Your task to perform on an android device: Search for vegetarian restaurants on Maps Image 0: 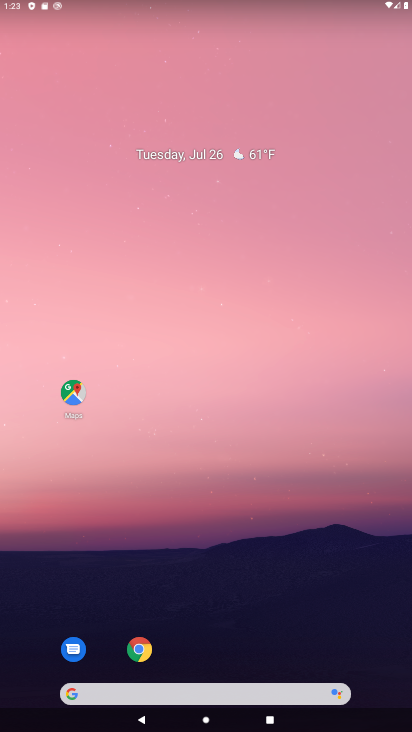
Step 0: click (81, 396)
Your task to perform on an android device: Search for vegetarian restaurants on Maps Image 1: 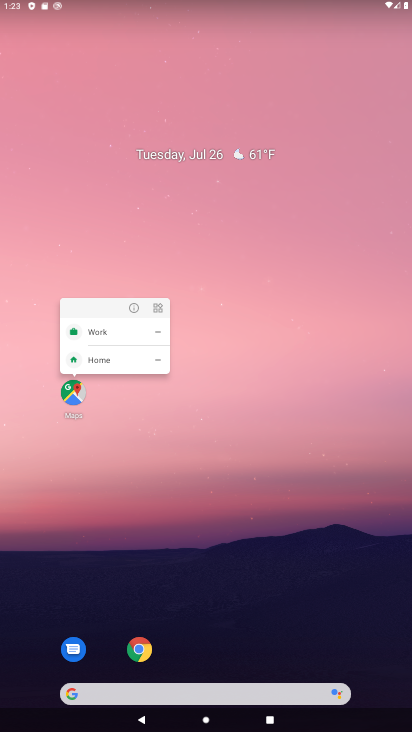
Step 1: click (73, 402)
Your task to perform on an android device: Search for vegetarian restaurants on Maps Image 2: 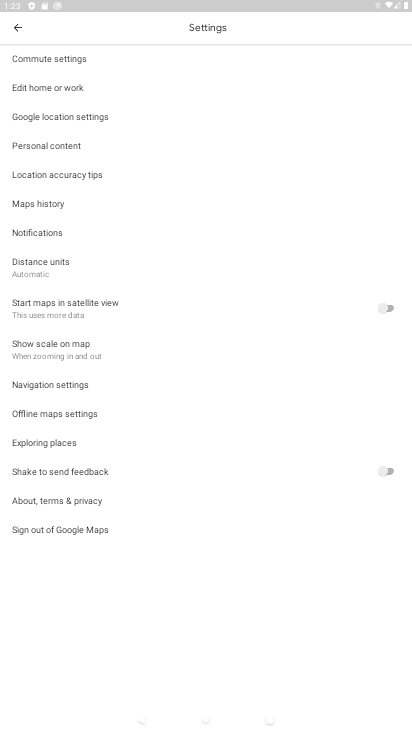
Step 2: click (17, 29)
Your task to perform on an android device: Search for vegetarian restaurants on Maps Image 3: 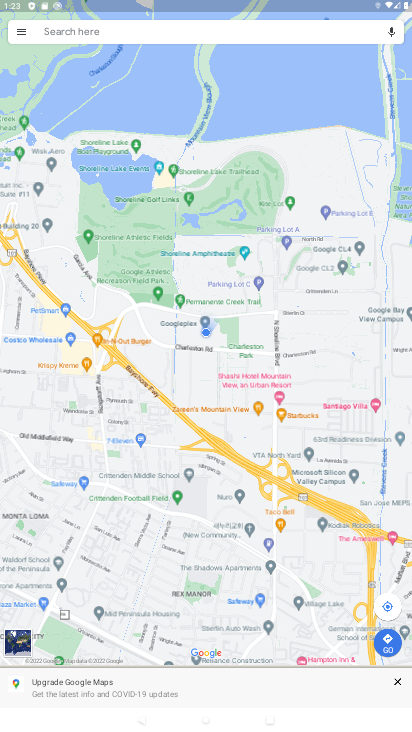
Step 3: click (199, 32)
Your task to perform on an android device: Search for vegetarian restaurants on Maps Image 4: 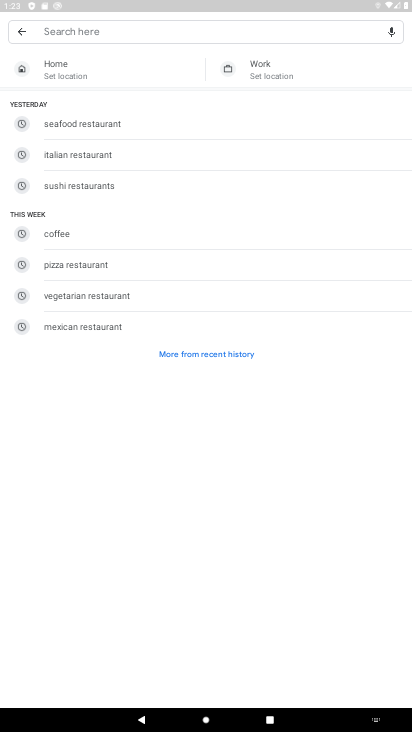
Step 4: click (56, 289)
Your task to perform on an android device: Search for vegetarian restaurants on Maps Image 5: 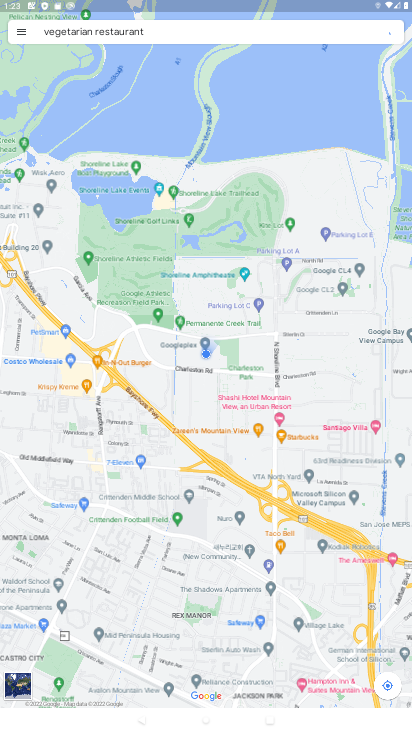
Step 5: task complete